Your task to perform on an android device: turn off priority inbox in the gmail app Image 0: 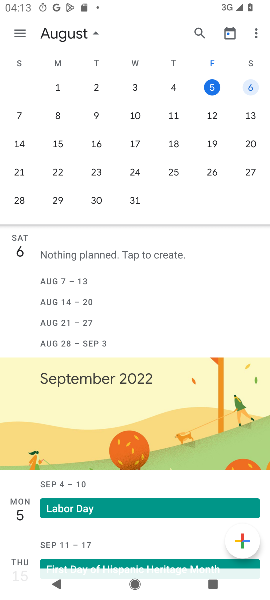
Step 0: press home button
Your task to perform on an android device: turn off priority inbox in the gmail app Image 1: 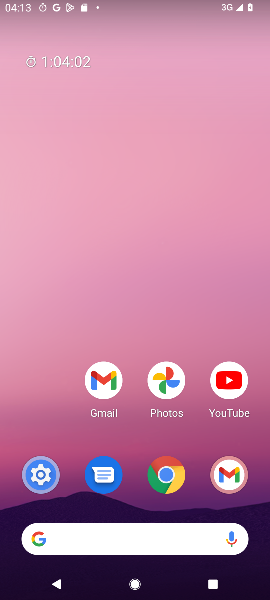
Step 1: drag from (58, 427) to (42, 202)
Your task to perform on an android device: turn off priority inbox in the gmail app Image 2: 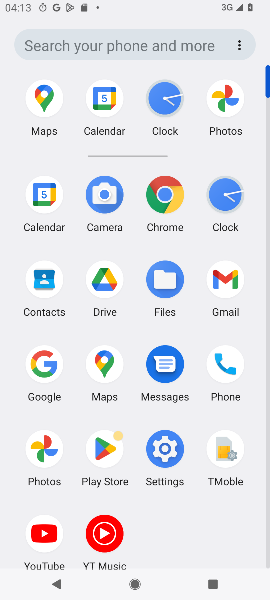
Step 2: click (234, 275)
Your task to perform on an android device: turn off priority inbox in the gmail app Image 3: 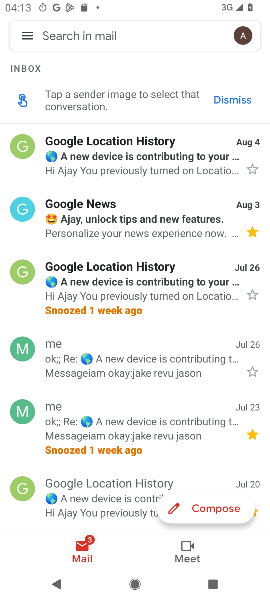
Step 3: click (27, 33)
Your task to perform on an android device: turn off priority inbox in the gmail app Image 4: 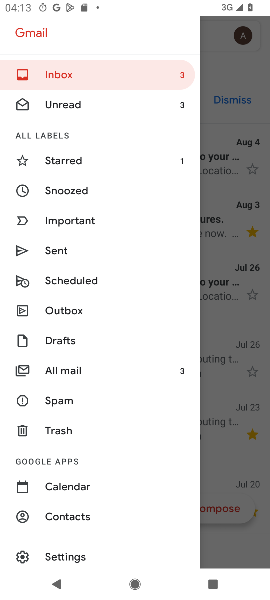
Step 4: drag from (133, 323) to (135, 256)
Your task to perform on an android device: turn off priority inbox in the gmail app Image 5: 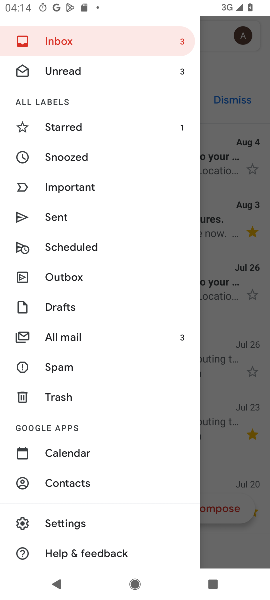
Step 5: click (72, 522)
Your task to perform on an android device: turn off priority inbox in the gmail app Image 6: 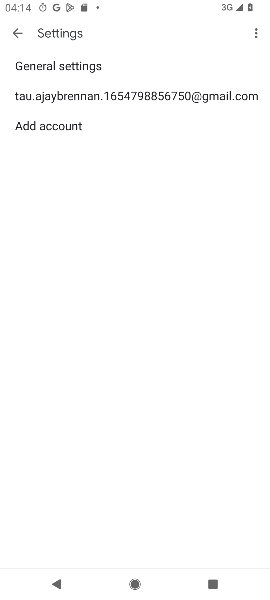
Step 6: click (133, 91)
Your task to perform on an android device: turn off priority inbox in the gmail app Image 7: 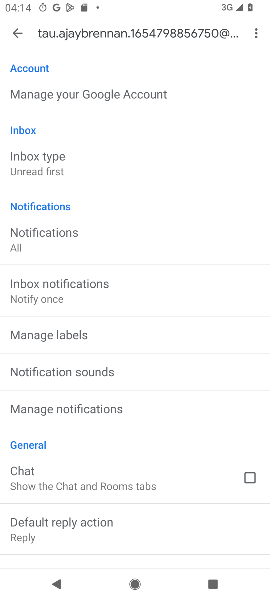
Step 7: task complete